Your task to perform on an android device: turn on the 24-hour format for clock Image 0: 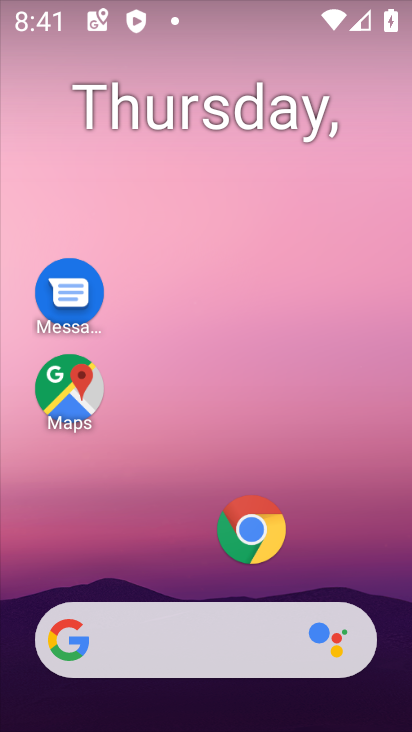
Step 0: drag from (173, 575) to (407, 24)
Your task to perform on an android device: turn on the 24-hour format for clock Image 1: 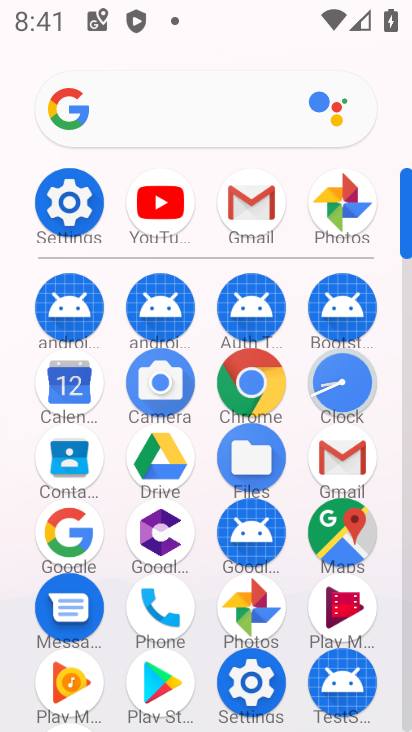
Step 1: click (350, 382)
Your task to perform on an android device: turn on the 24-hour format for clock Image 2: 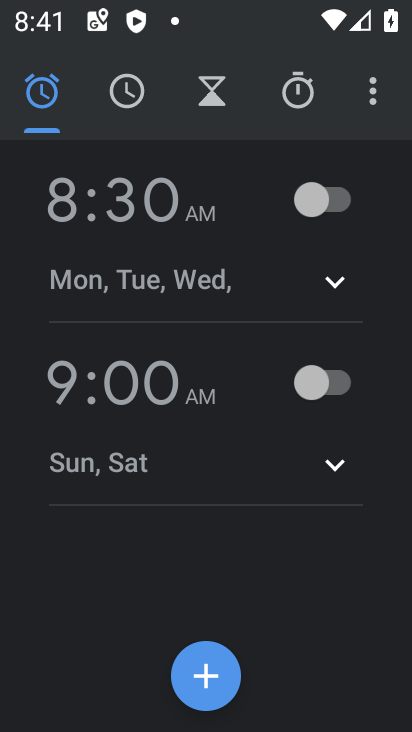
Step 2: click (381, 90)
Your task to perform on an android device: turn on the 24-hour format for clock Image 3: 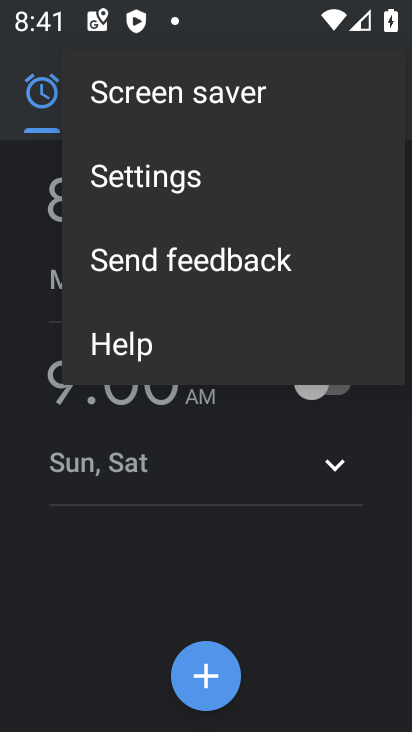
Step 3: click (186, 192)
Your task to perform on an android device: turn on the 24-hour format for clock Image 4: 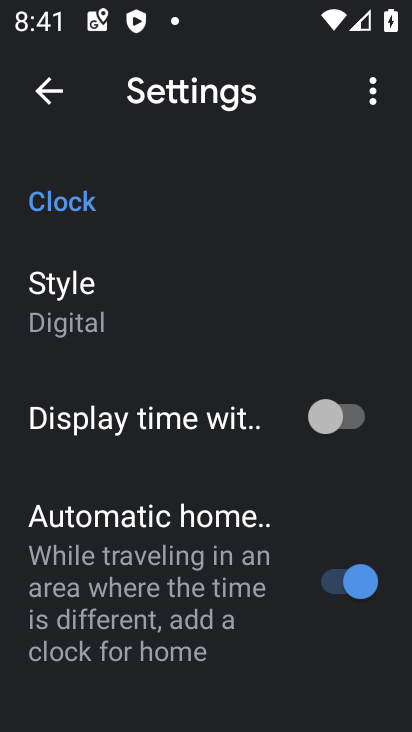
Step 4: drag from (245, 645) to (260, 382)
Your task to perform on an android device: turn on the 24-hour format for clock Image 5: 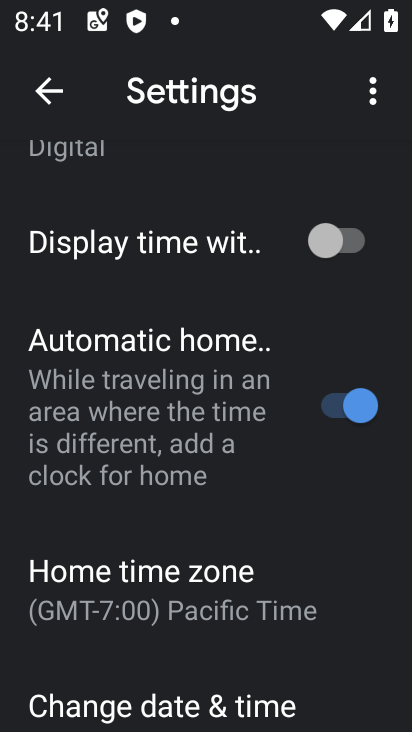
Step 5: drag from (193, 632) to (223, 431)
Your task to perform on an android device: turn on the 24-hour format for clock Image 6: 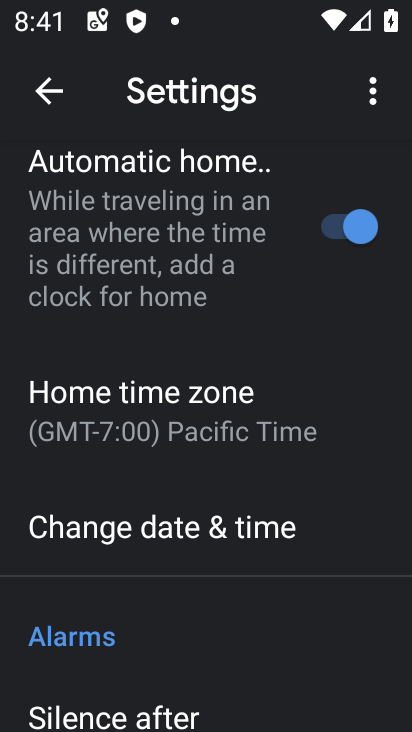
Step 6: click (259, 548)
Your task to perform on an android device: turn on the 24-hour format for clock Image 7: 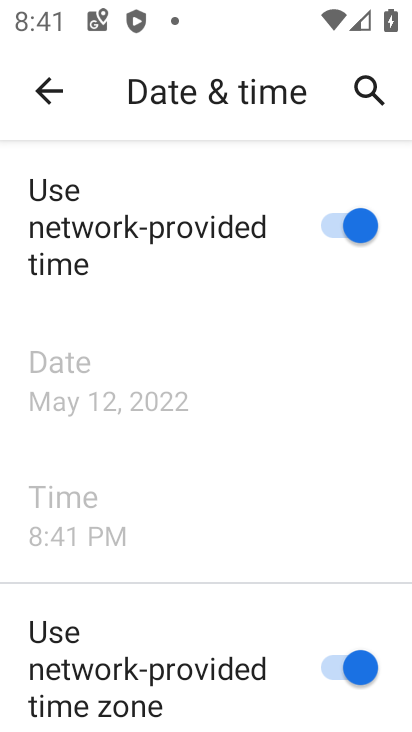
Step 7: drag from (192, 573) to (221, 307)
Your task to perform on an android device: turn on the 24-hour format for clock Image 8: 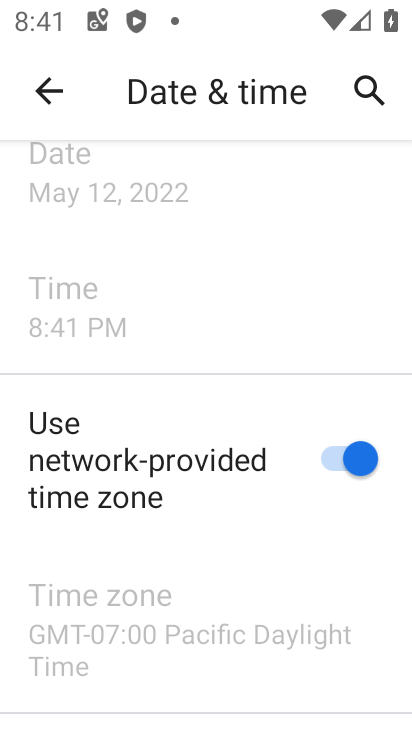
Step 8: drag from (53, 718) to (161, 239)
Your task to perform on an android device: turn on the 24-hour format for clock Image 9: 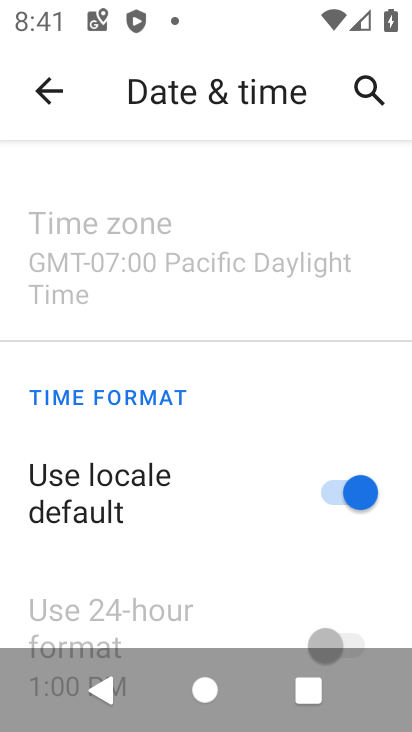
Step 9: click (352, 485)
Your task to perform on an android device: turn on the 24-hour format for clock Image 10: 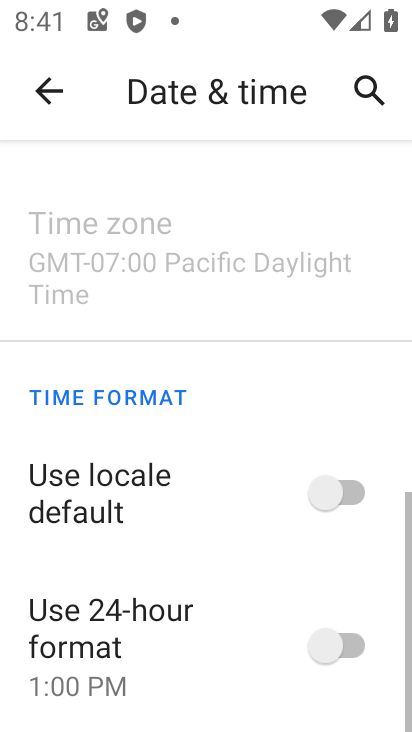
Step 10: click (344, 644)
Your task to perform on an android device: turn on the 24-hour format for clock Image 11: 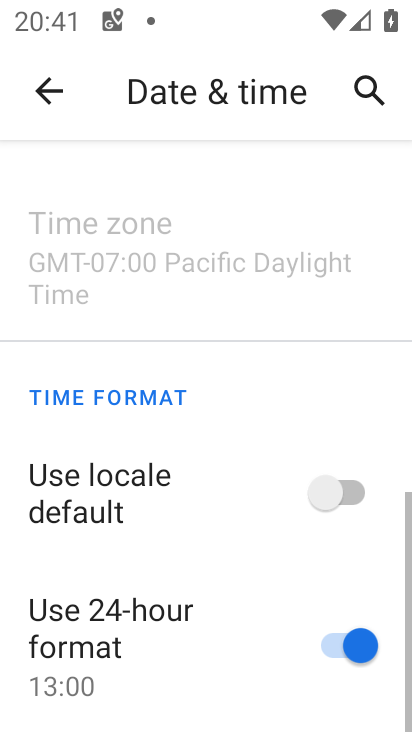
Step 11: task complete